Your task to perform on an android device: check android version Image 0: 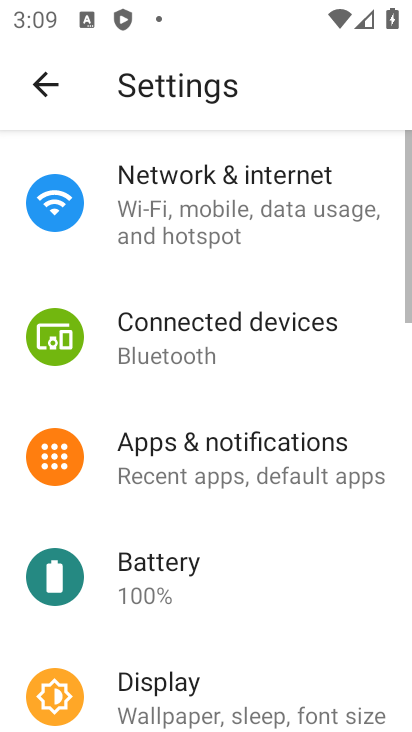
Step 0: drag from (301, 701) to (247, 69)
Your task to perform on an android device: check android version Image 1: 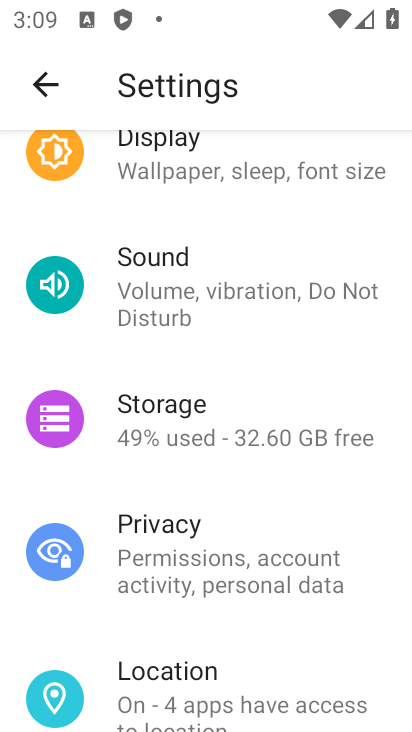
Step 1: drag from (276, 677) to (330, 141)
Your task to perform on an android device: check android version Image 2: 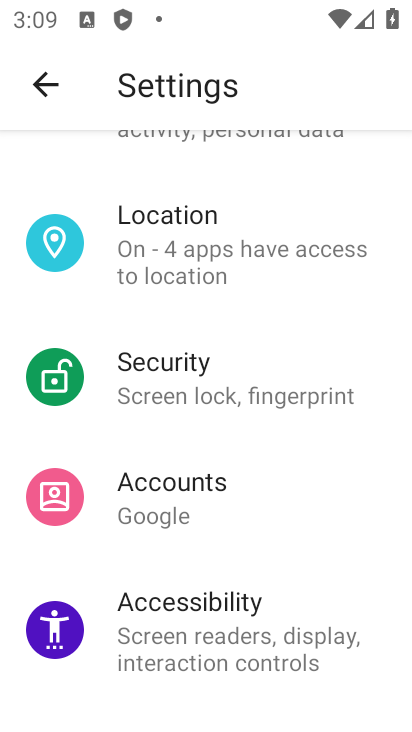
Step 2: drag from (321, 626) to (398, 183)
Your task to perform on an android device: check android version Image 3: 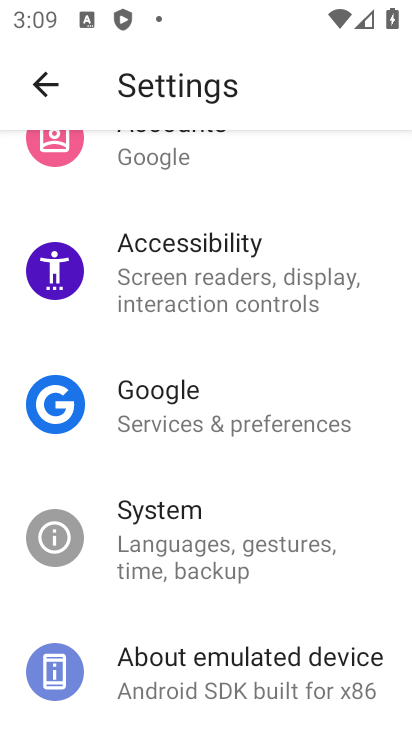
Step 3: click (298, 676)
Your task to perform on an android device: check android version Image 4: 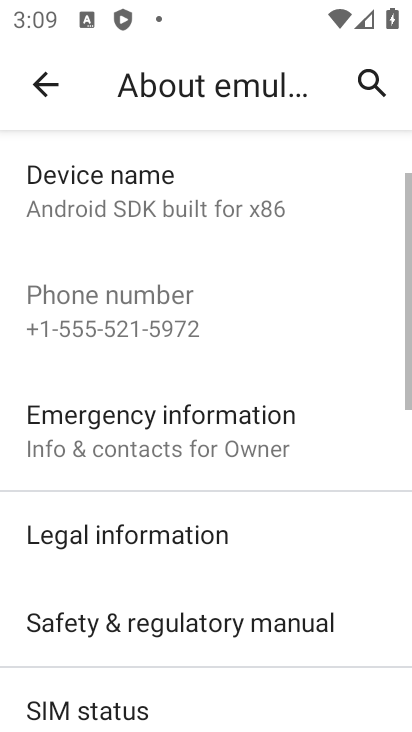
Step 4: drag from (291, 679) to (288, 644)
Your task to perform on an android device: check android version Image 5: 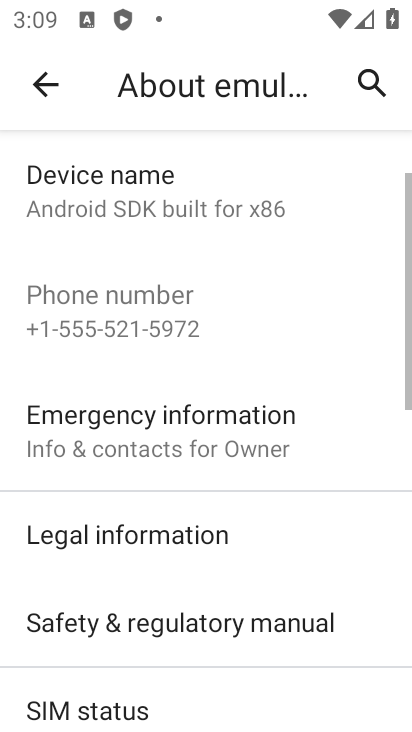
Step 5: drag from (283, 689) to (295, 130)
Your task to perform on an android device: check android version Image 6: 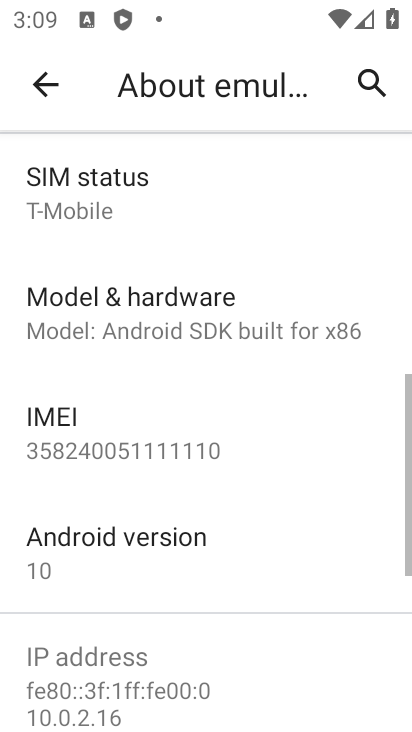
Step 6: click (201, 567)
Your task to perform on an android device: check android version Image 7: 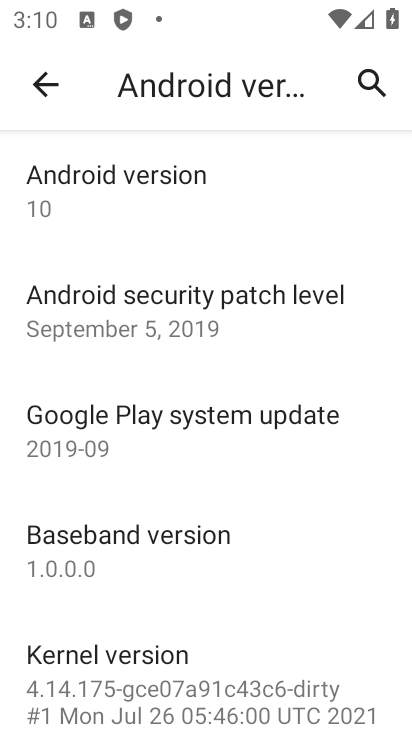
Step 7: task complete